Your task to perform on an android device: What's the weather going to be this weekend? Image 0: 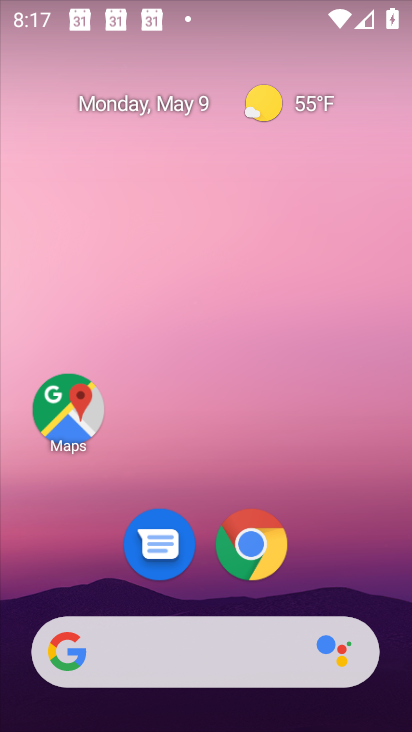
Step 0: drag from (195, 579) to (198, 88)
Your task to perform on an android device: What's the weather going to be this weekend? Image 1: 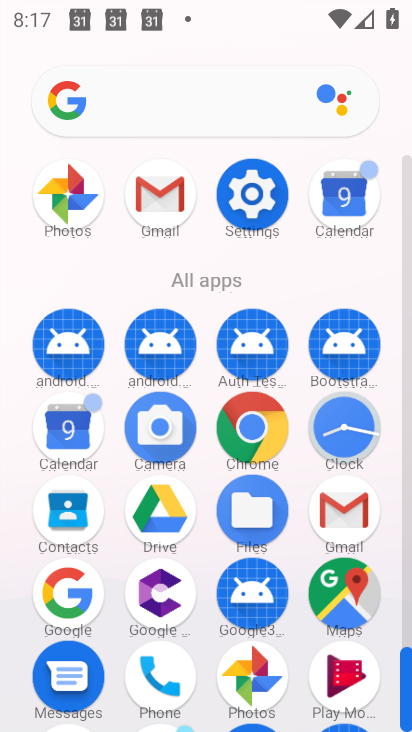
Step 1: click (73, 585)
Your task to perform on an android device: What's the weather going to be this weekend? Image 2: 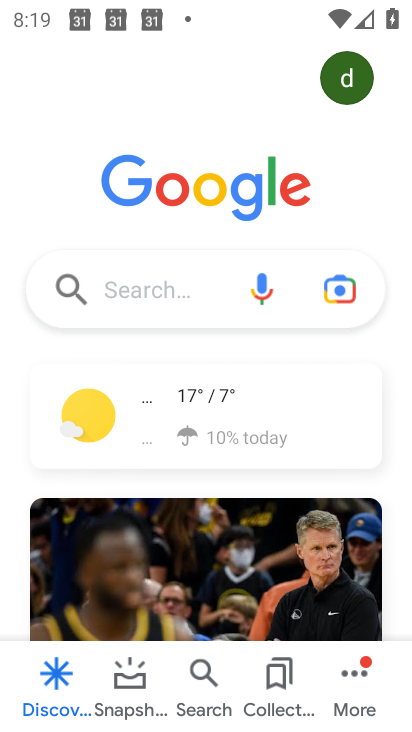
Step 2: click (186, 407)
Your task to perform on an android device: What's the weather going to be this weekend? Image 3: 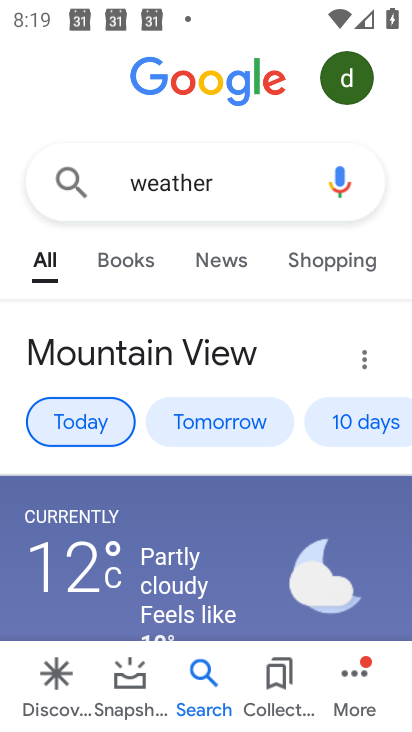
Step 3: click (332, 425)
Your task to perform on an android device: What's the weather going to be this weekend? Image 4: 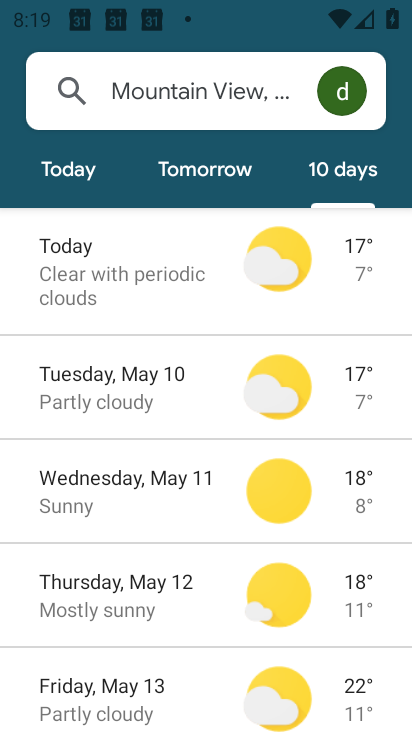
Step 4: drag from (214, 621) to (243, 314)
Your task to perform on an android device: What's the weather going to be this weekend? Image 5: 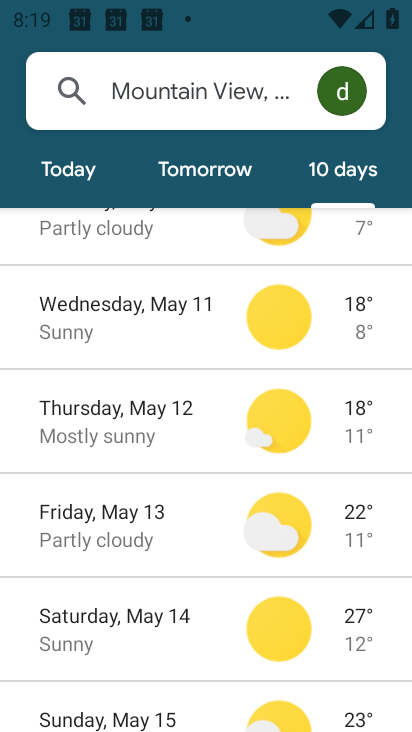
Step 5: drag from (243, 620) to (240, 424)
Your task to perform on an android device: What's the weather going to be this weekend? Image 6: 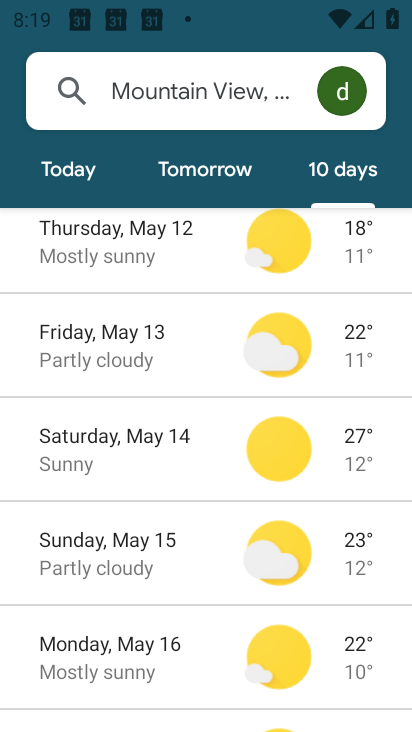
Step 6: click (210, 440)
Your task to perform on an android device: What's the weather going to be this weekend? Image 7: 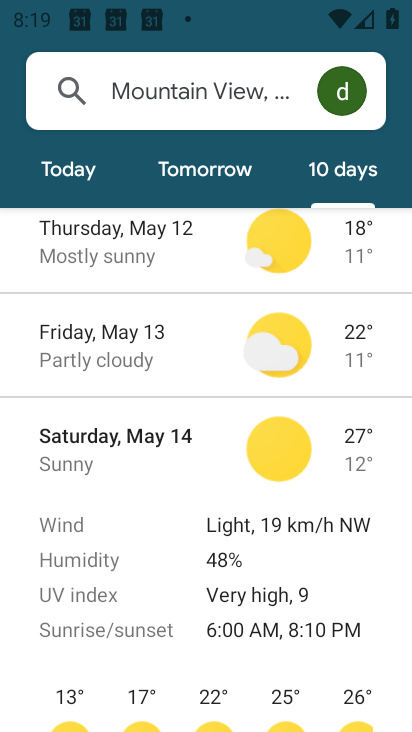
Step 7: task complete